Your task to perform on an android device: change text size in settings app Image 0: 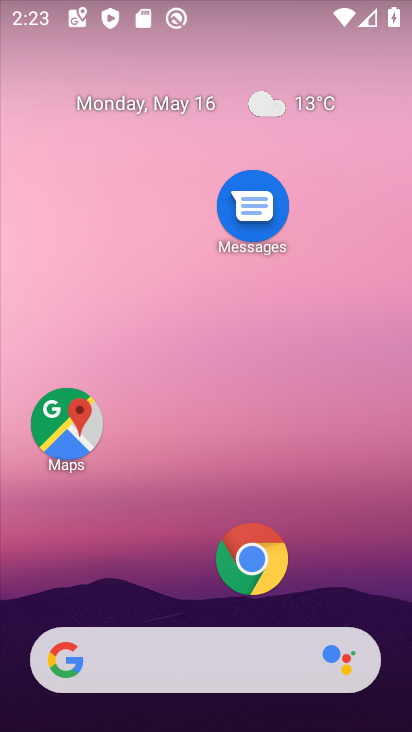
Step 0: drag from (144, 544) to (230, 184)
Your task to perform on an android device: change text size in settings app Image 1: 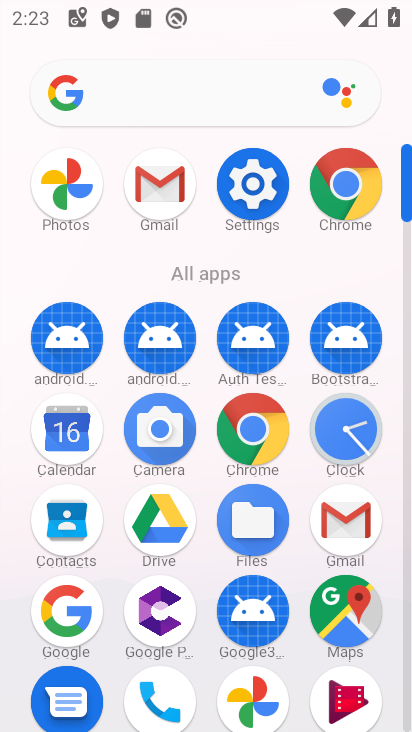
Step 1: click (255, 182)
Your task to perform on an android device: change text size in settings app Image 2: 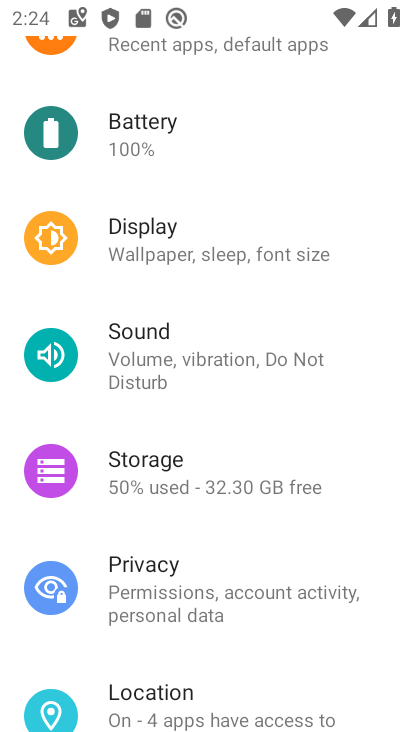
Step 2: drag from (184, 612) to (212, 345)
Your task to perform on an android device: change text size in settings app Image 3: 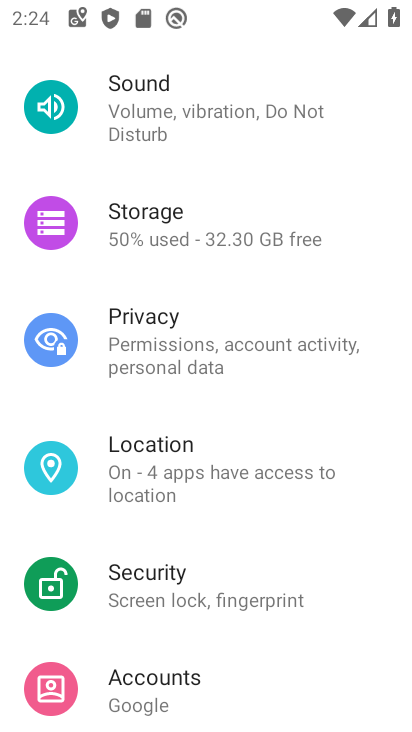
Step 3: drag from (240, 230) to (232, 599)
Your task to perform on an android device: change text size in settings app Image 4: 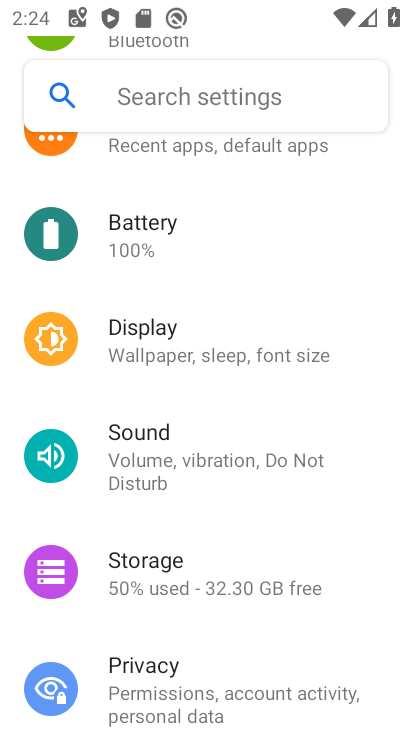
Step 4: drag from (210, 209) to (224, 600)
Your task to perform on an android device: change text size in settings app Image 5: 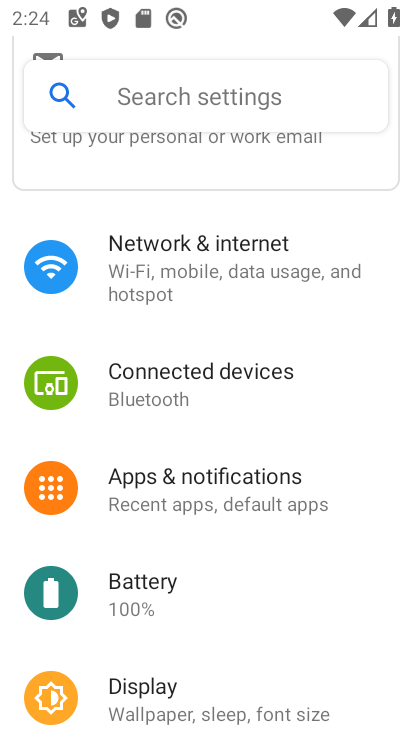
Step 5: click (165, 692)
Your task to perform on an android device: change text size in settings app Image 6: 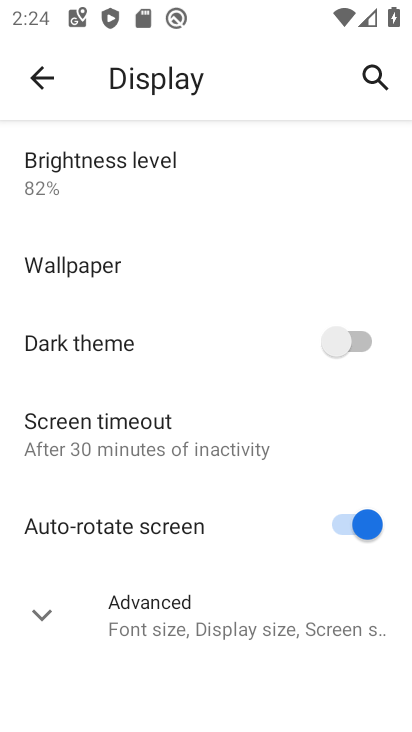
Step 6: click (46, 610)
Your task to perform on an android device: change text size in settings app Image 7: 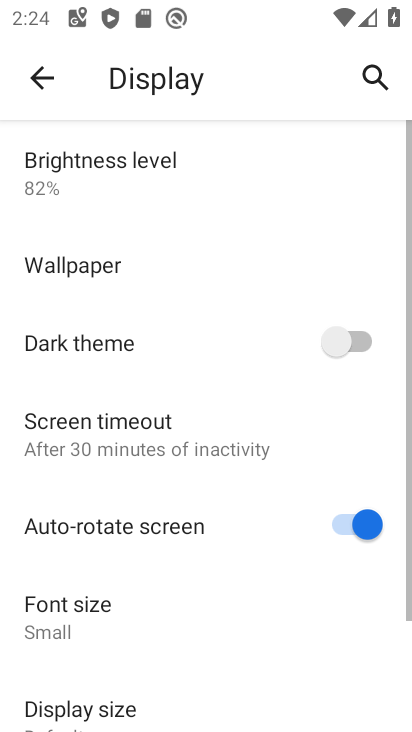
Step 7: drag from (187, 566) to (210, 249)
Your task to perform on an android device: change text size in settings app Image 8: 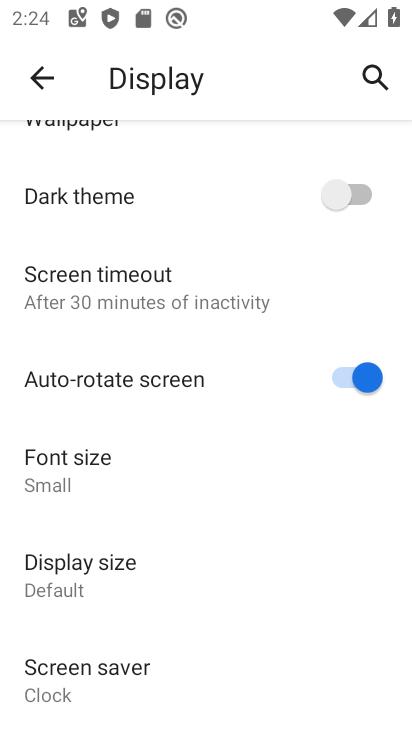
Step 8: click (72, 471)
Your task to perform on an android device: change text size in settings app Image 9: 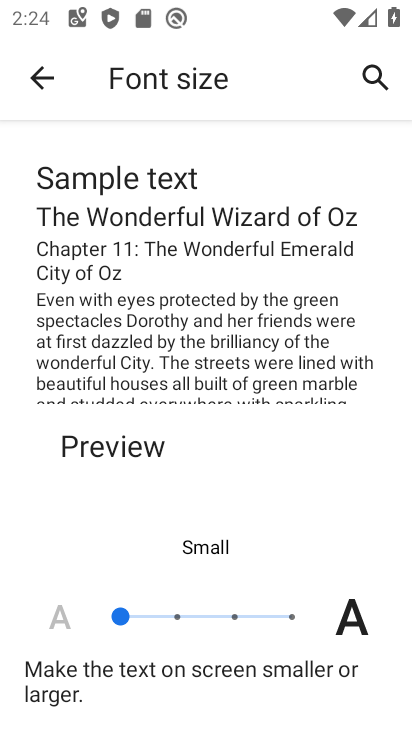
Step 9: click (161, 606)
Your task to perform on an android device: change text size in settings app Image 10: 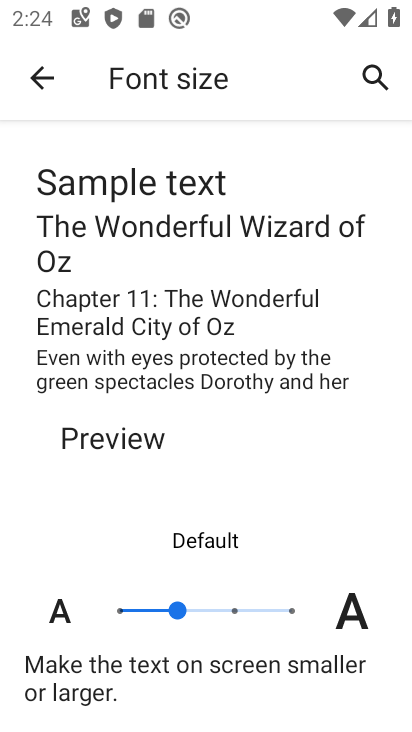
Step 10: task complete